Your task to perform on an android device: open device folders in google photos Image 0: 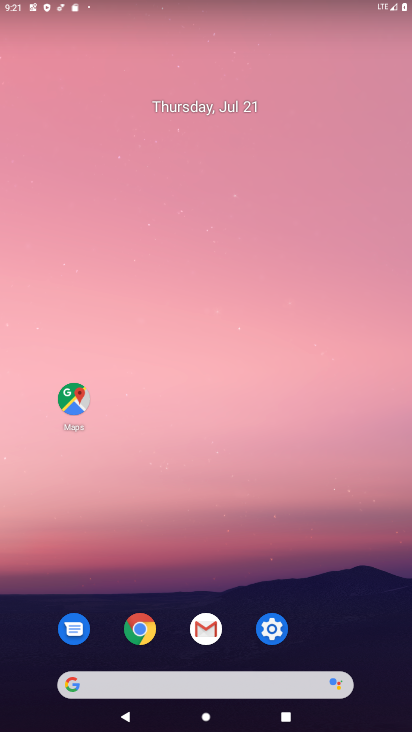
Step 0: drag from (235, 695) to (348, 81)
Your task to perform on an android device: open device folders in google photos Image 1: 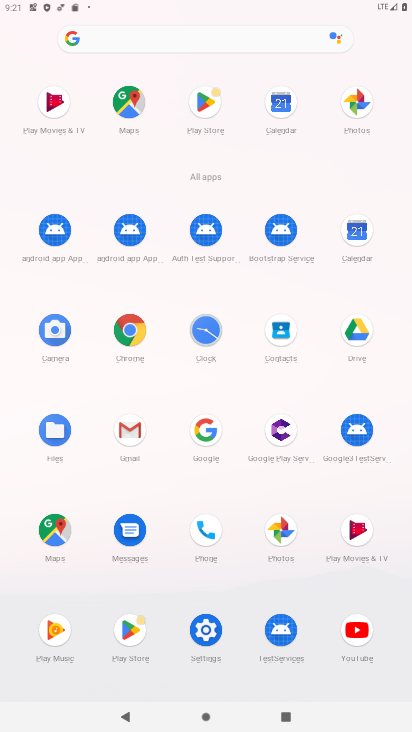
Step 1: click (272, 530)
Your task to perform on an android device: open device folders in google photos Image 2: 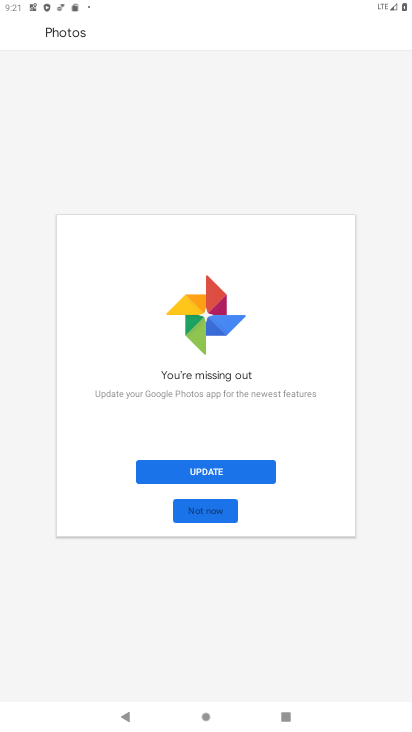
Step 2: click (211, 463)
Your task to perform on an android device: open device folders in google photos Image 3: 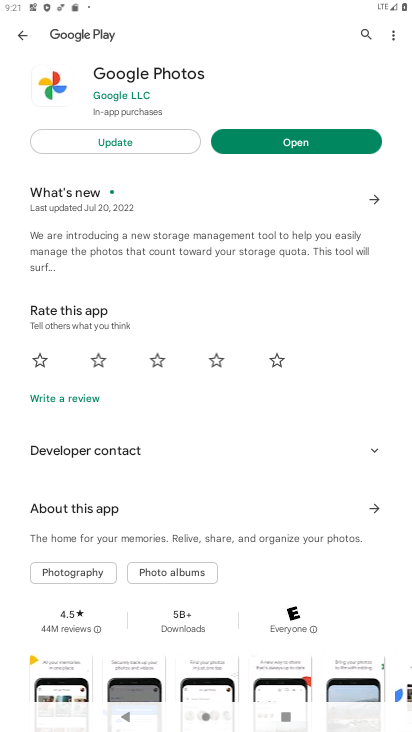
Step 3: click (114, 142)
Your task to perform on an android device: open device folders in google photos Image 4: 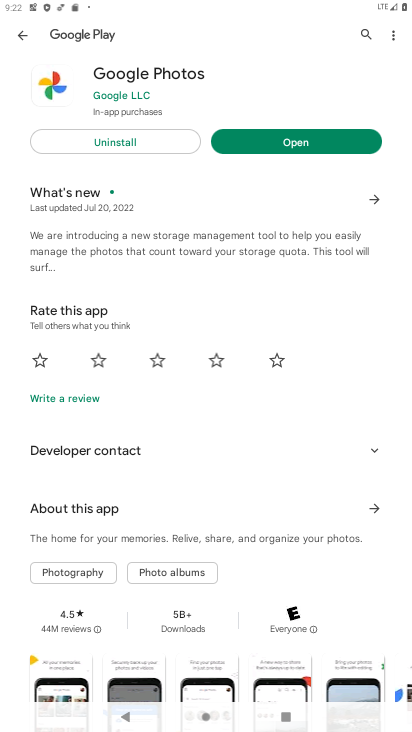
Step 4: click (324, 138)
Your task to perform on an android device: open device folders in google photos Image 5: 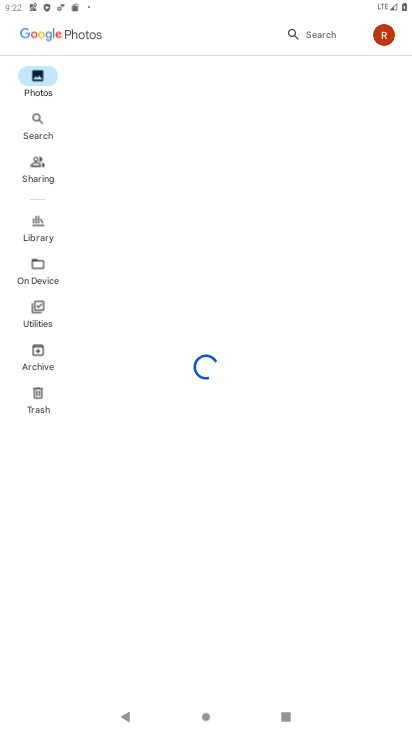
Step 5: click (289, 30)
Your task to perform on an android device: open device folders in google photos Image 6: 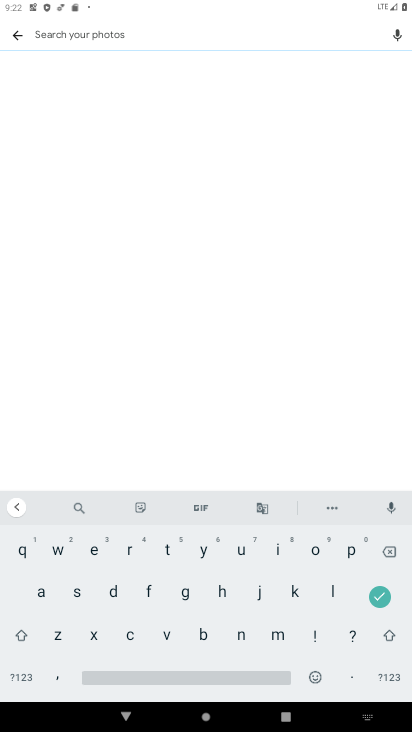
Step 6: click (110, 587)
Your task to perform on an android device: open device folders in google photos Image 7: 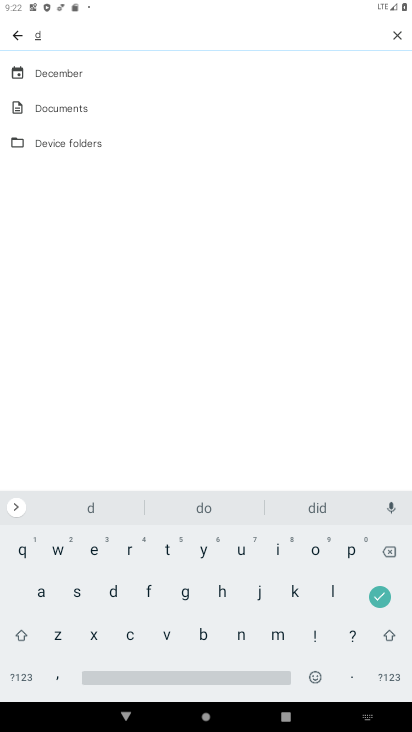
Step 7: click (90, 541)
Your task to perform on an android device: open device folders in google photos Image 8: 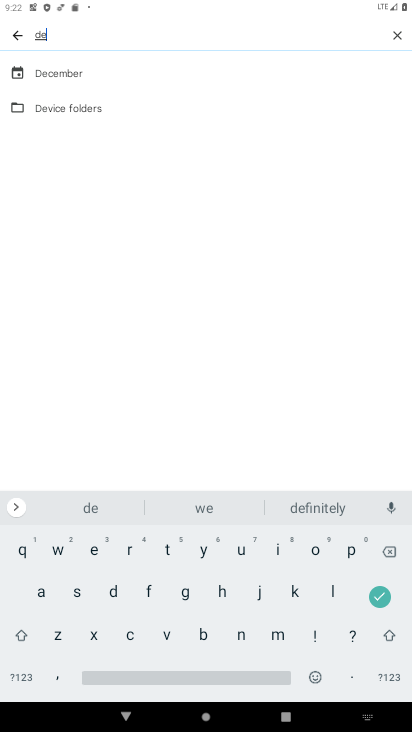
Step 8: click (76, 111)
Your task to perform on an android device: open device folders in google photos Image 9: 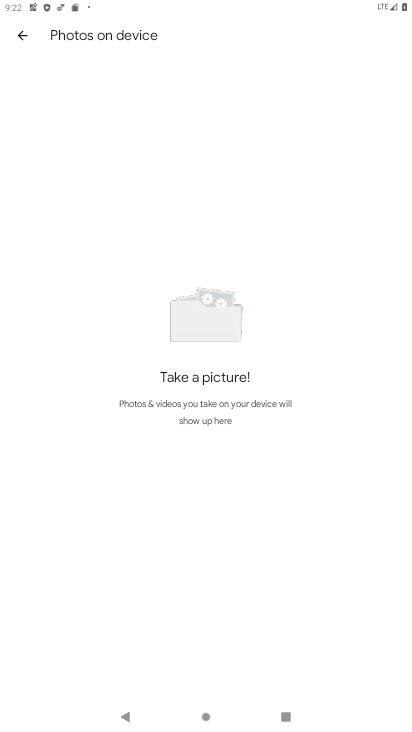
Step 9: click (94, 107)
Your task to perform on an android device: open device folders in google photos Image 10: 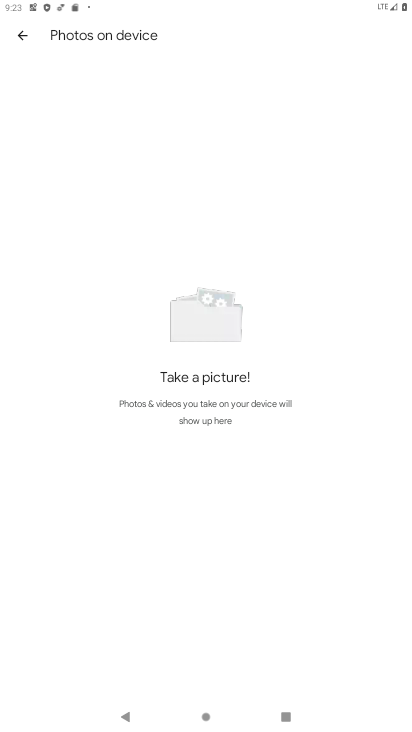
Step 10: task complete